Your task to perform on an android device: Open settings on Google Maps Image 0: 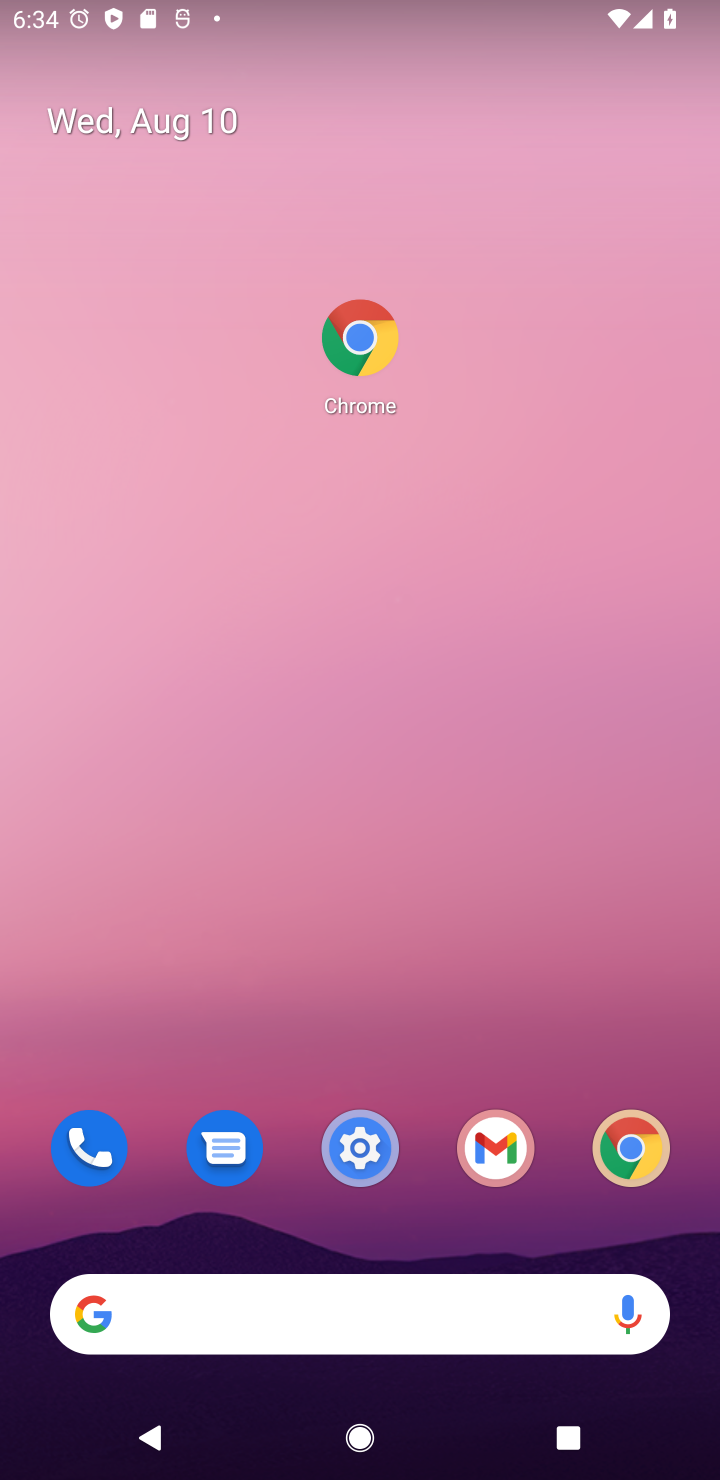
Step 0: drag from (160, 1204) to (355, 196)
Your task to perform on an android device: Open settings on Google Maps Image 1: 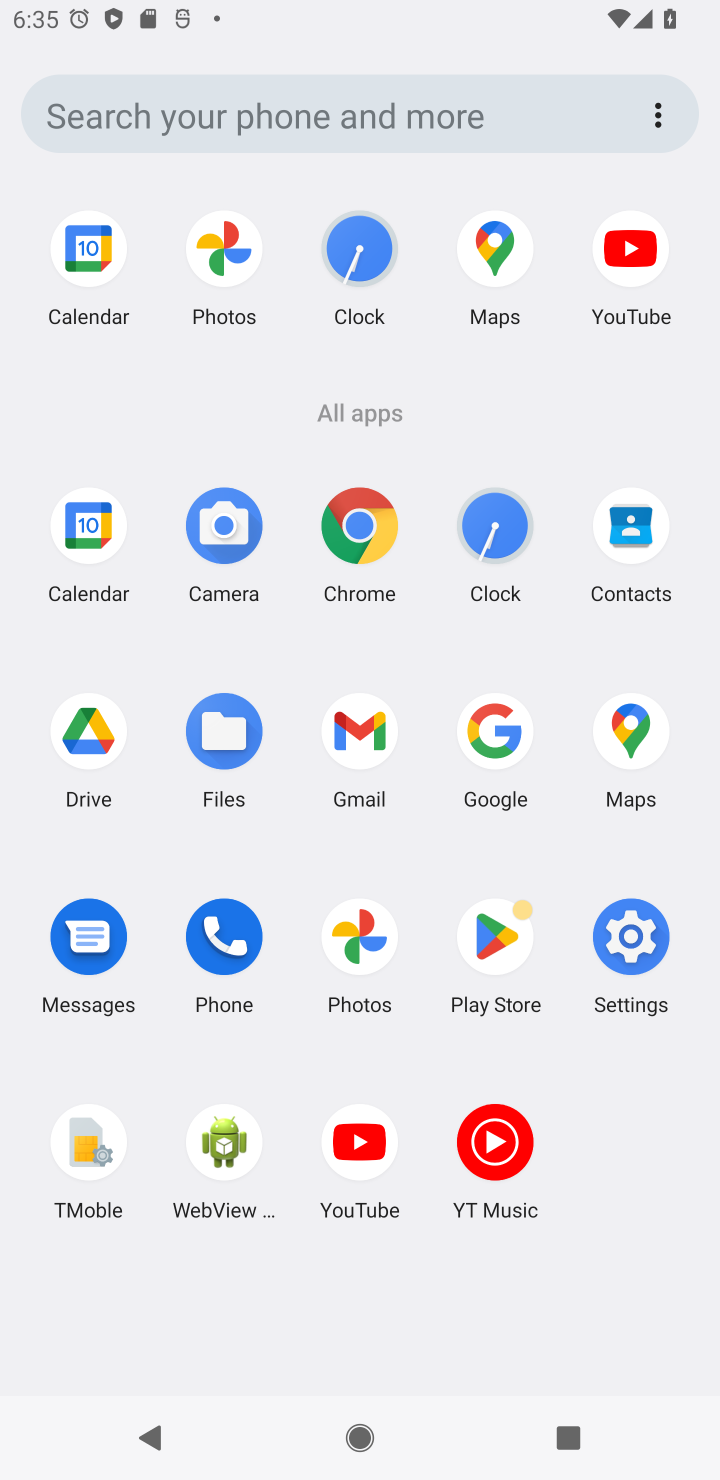
Step 1: click (621, 748)
Your task to perform on an android device: Open settings on Google Maps Image 2: 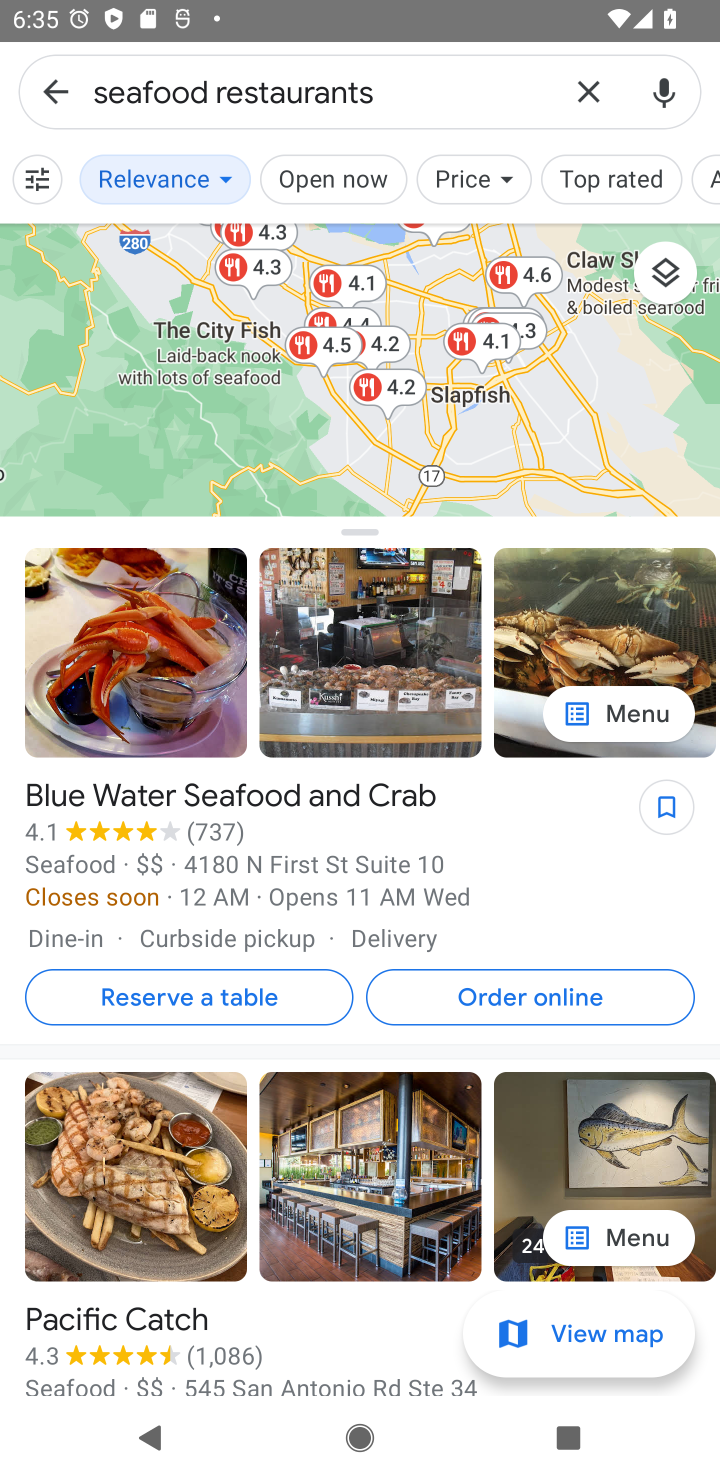
Step 2: click (52, 87)
Your task to perform on an android device: Open settings on Google Maps Image 3: 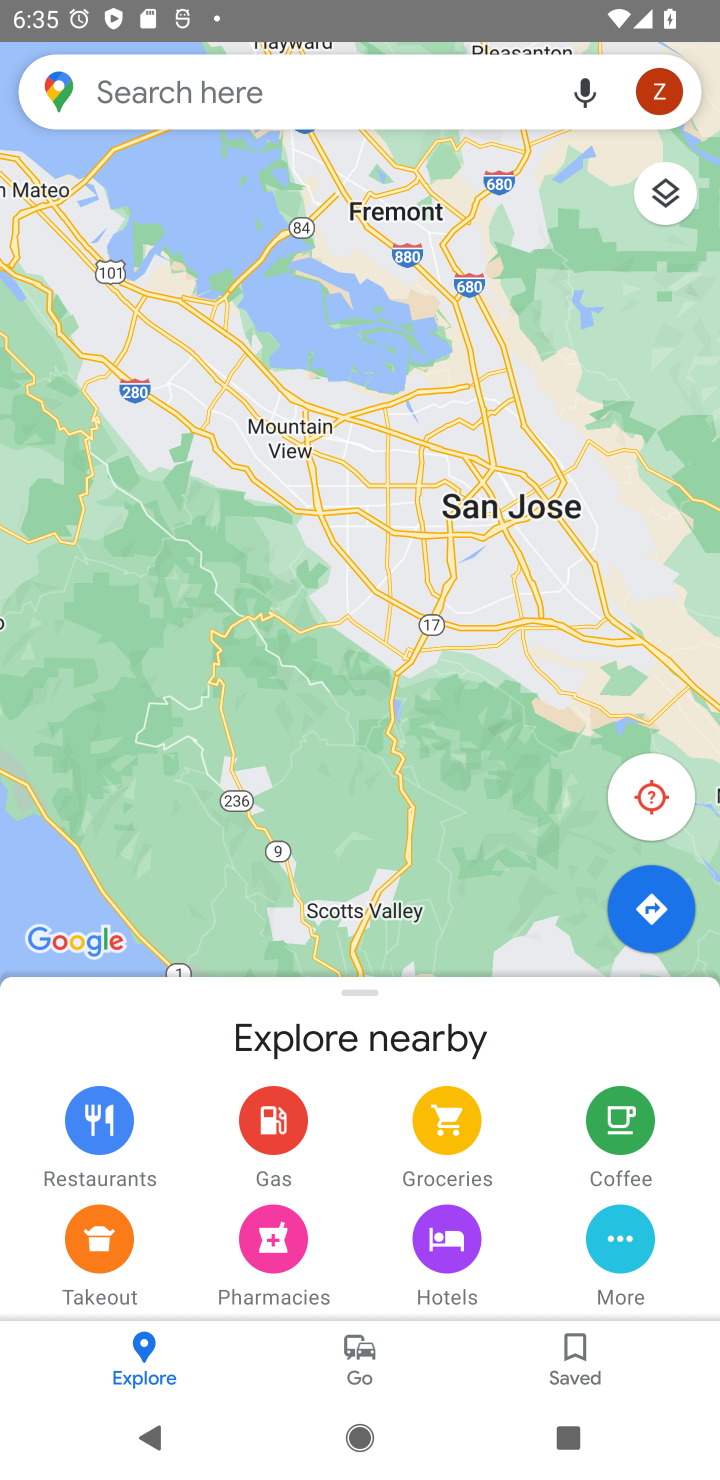
Step 3: click (643, 92)
Your task to perform on an android device: Open settings on Google Maps Image 4: 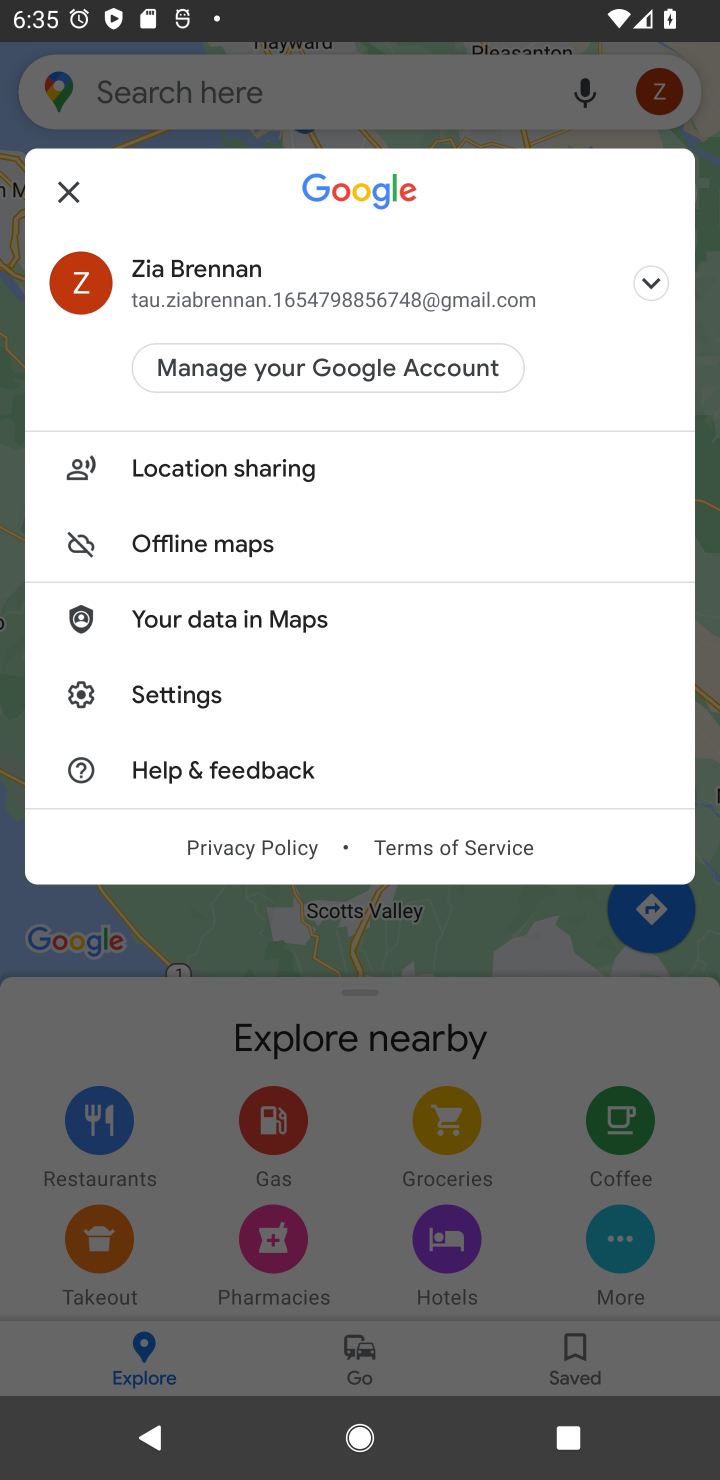
Step 4: click (193, 685)
Your task to perform on an android device: Open settings on Google Maps Image 5: 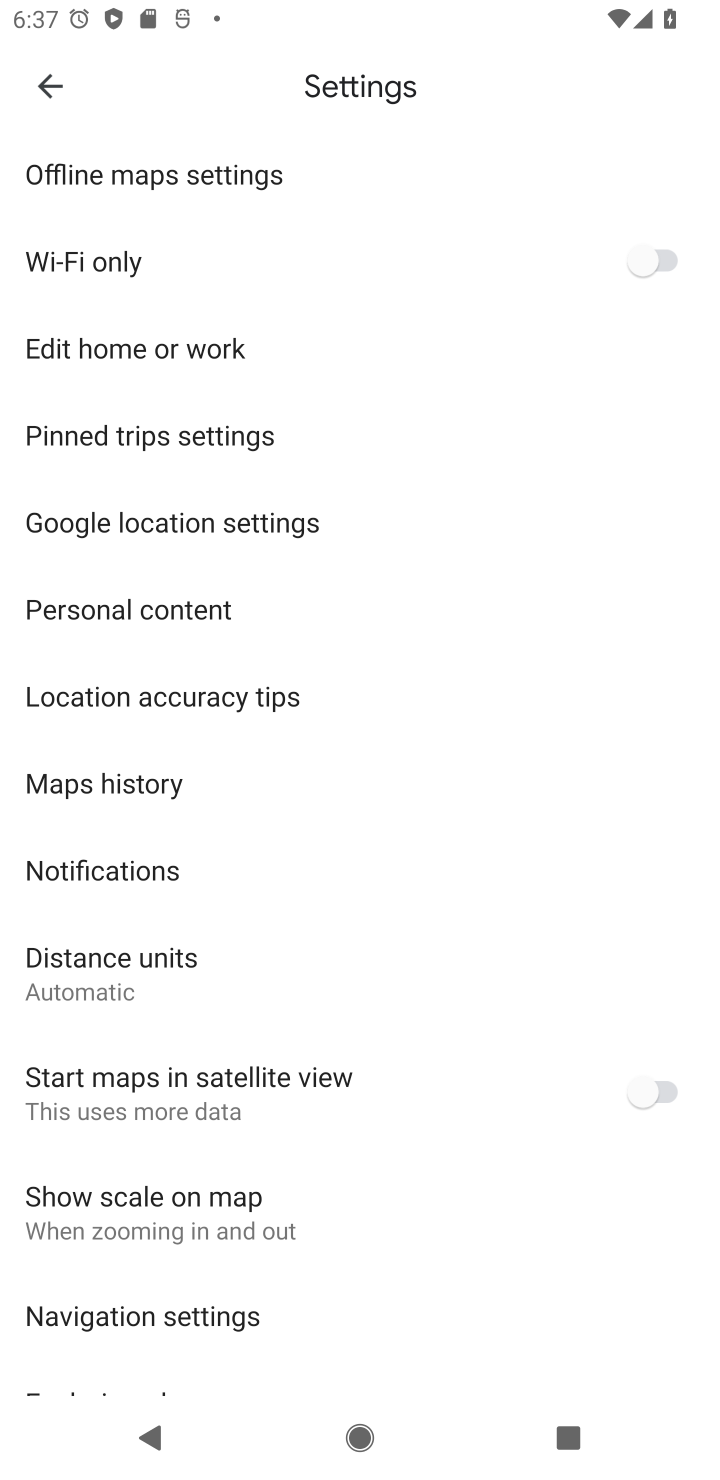
Step 5: task complete